Your task to perform on an android device: Open Google Maps Image 0: 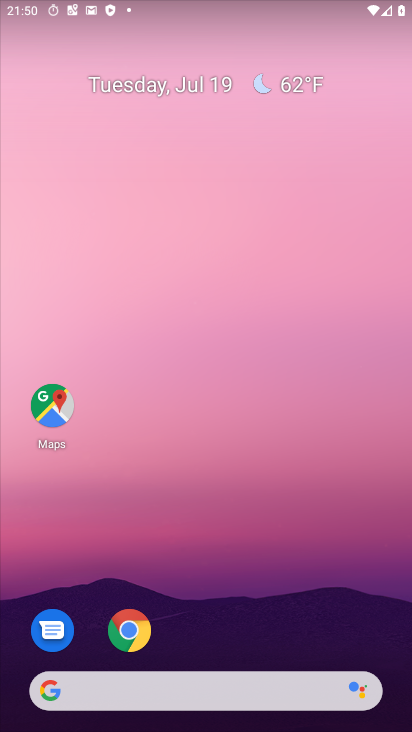
Step 0: click (54, 418)
Your task to perform on an android device: Open Google Maps Image 1: 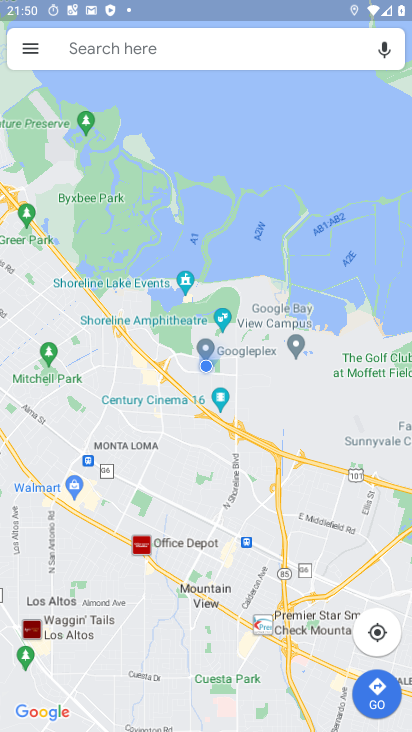
Step 1: click (62, 46)
Your task to perform on an android device: Open Google Maps Image 2: 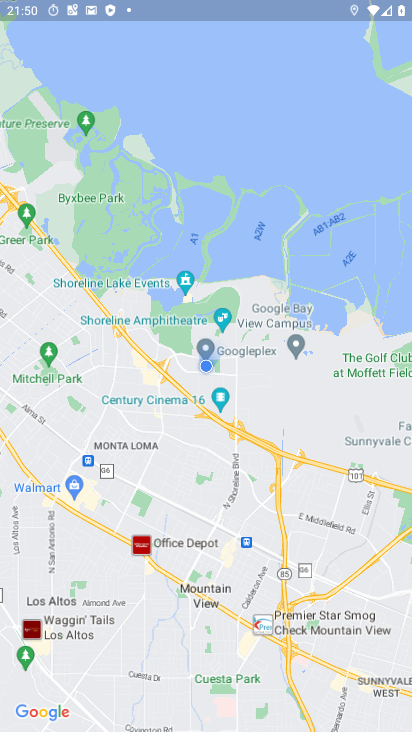
Step 2: task complete